Your task to perform on an android device: When is my next appointment? Image 0: 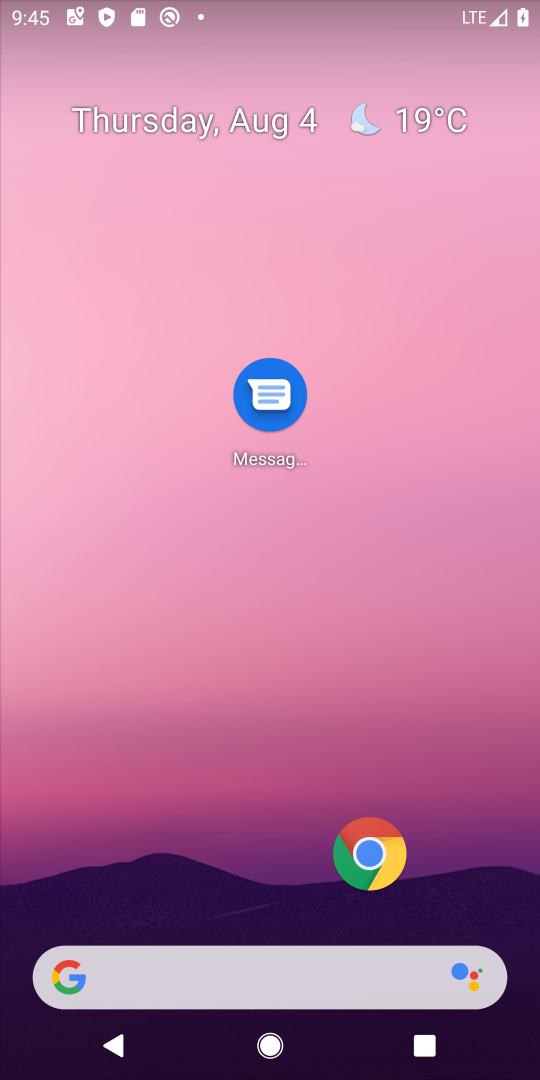
Step 0: drag from (262, 934) to (246, 234)
Your task to perform on an android device: When is my next appointment? Image 1: 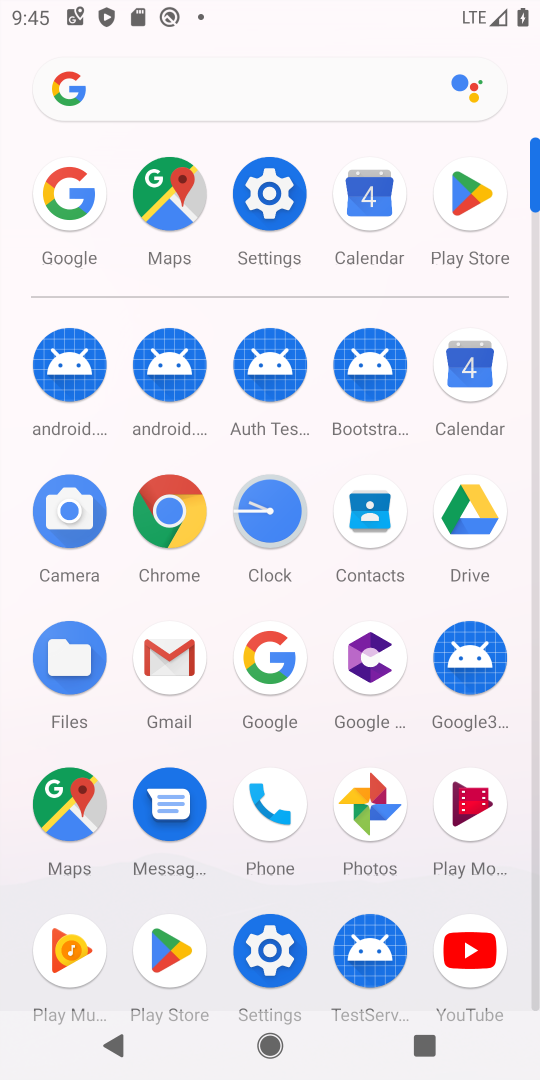
Step 1: click (455, 375)
Your task to perform on an android device: When is my next appointment? Image 2: 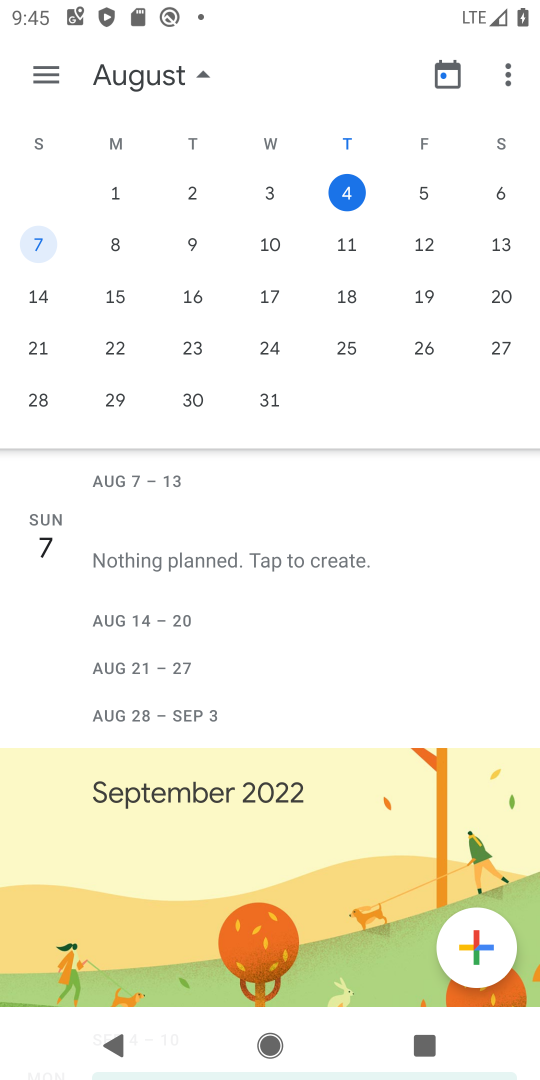
Step 2: drag from (424, 203) to (490, 203)
Your task to perform on an android device: When is my next appointment? Image 3: 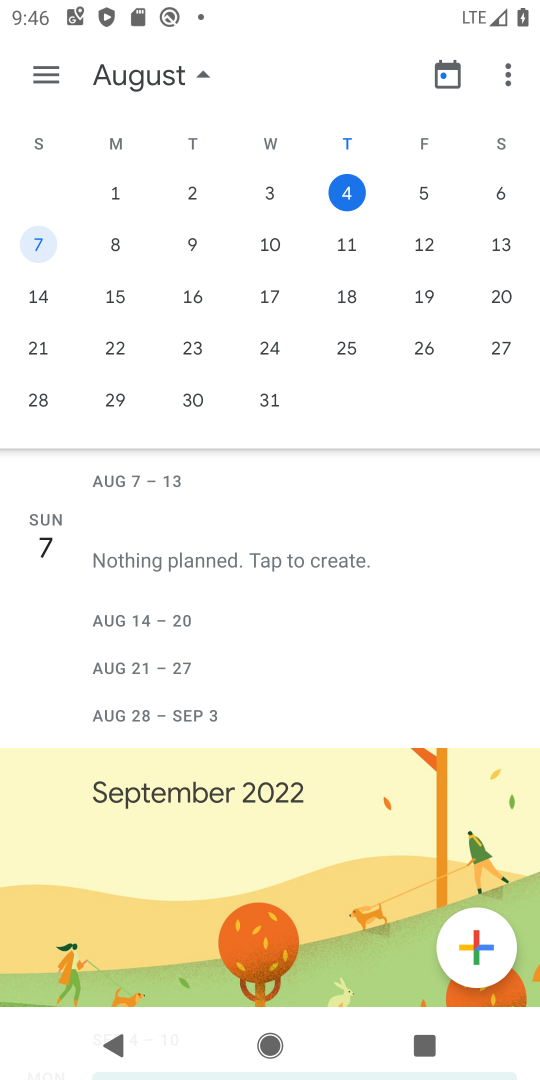
Step 3: click (491, 203)
Your task to perform on an android device: When is my next appointment? Image 4: 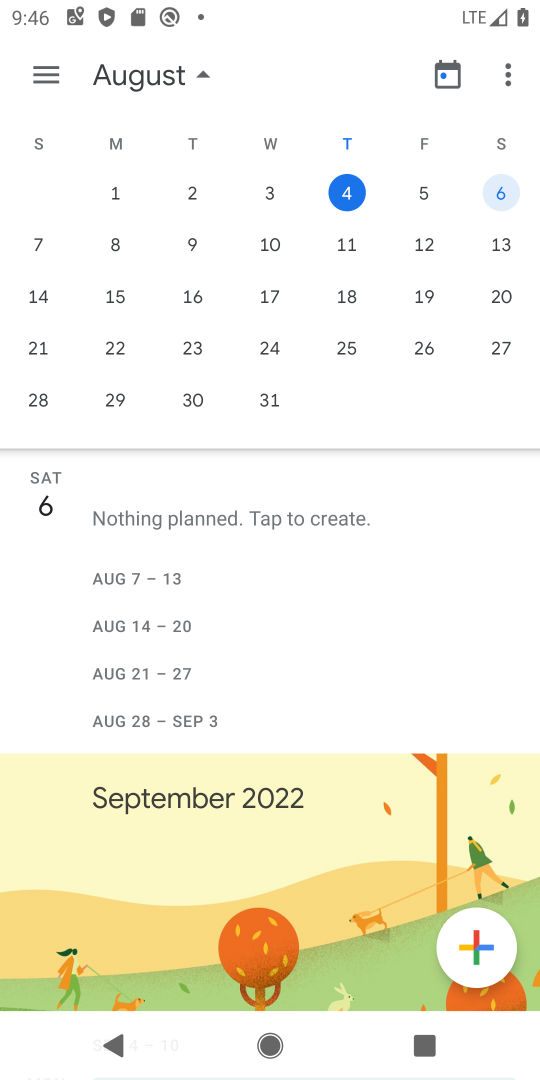
Step 4: click (441, 197)
Your task to perform on an android device: When is my next appointment? Image 5: 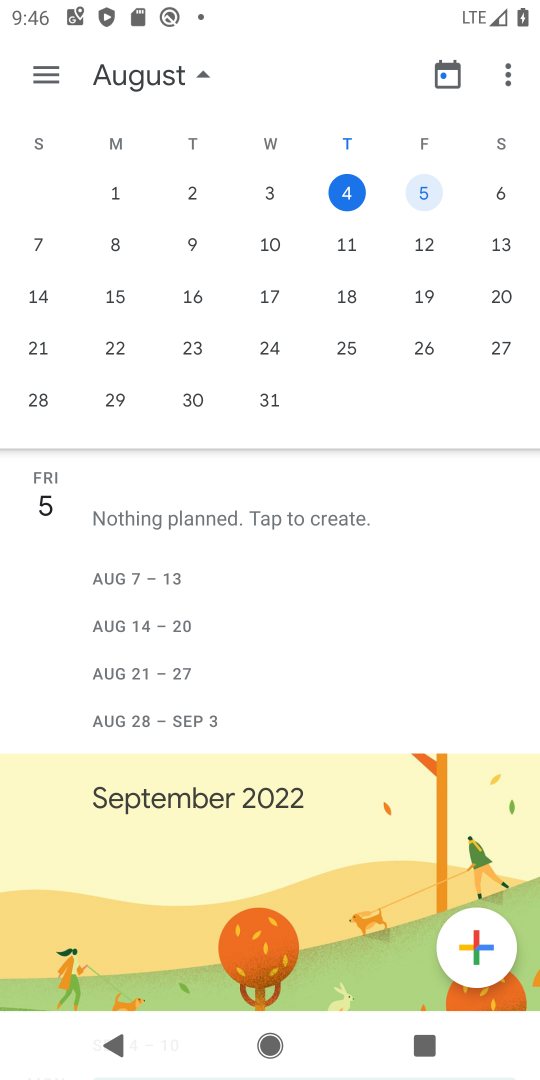
Step 5: click (45, 242)
Your task to perform on an android device: When is my next appointment? Image 6: 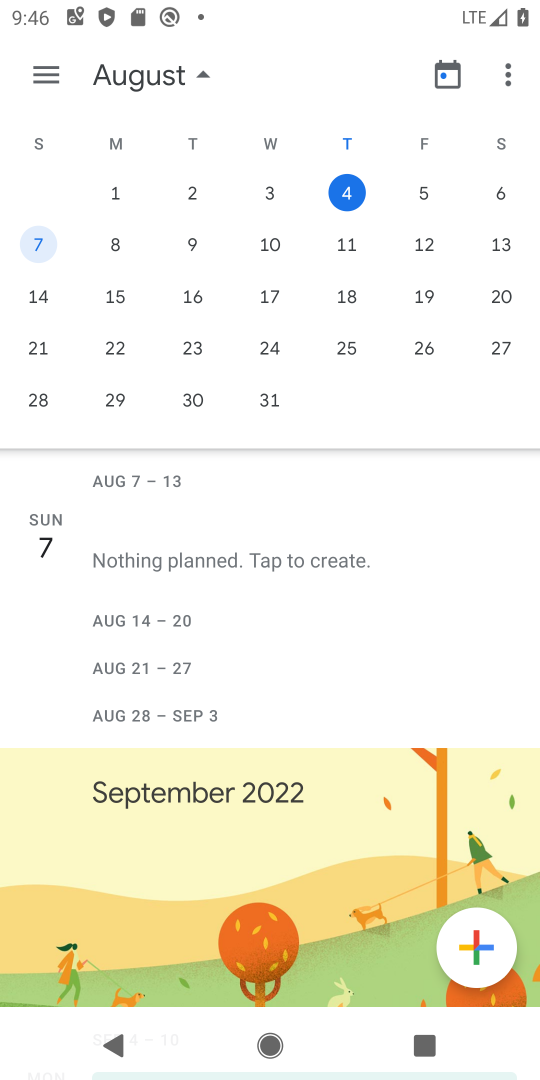
Step 6: task complete